Your task to perform on an android device: Open calendar and show me the second week of next month Image 0: 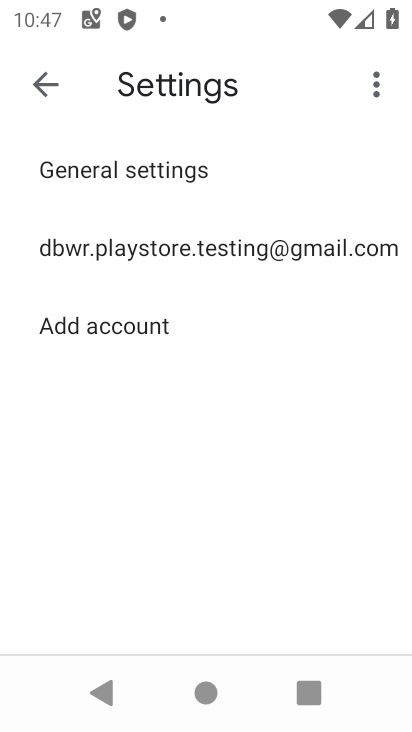
Step 0: press home button
Your task to perform on an android device: Open calendar and show me the second week of next month Image 1: 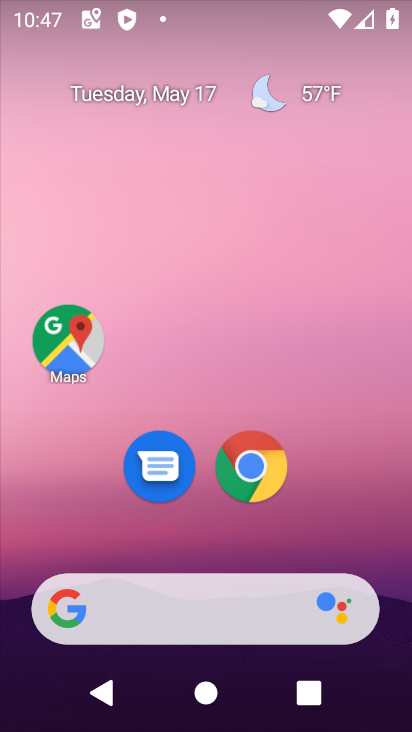
Step 1: drag from (227, 558) to (220, 112)
Your task to perform on an android device: Open calendar and show me the second week of next month Image 2: 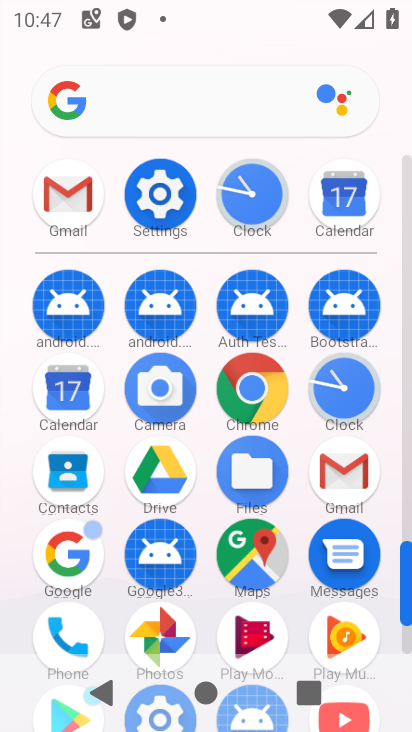
Step 2: click (76, 397)
Your task to perform on an android device: Open calendar and show me the second week of next month Image 3: 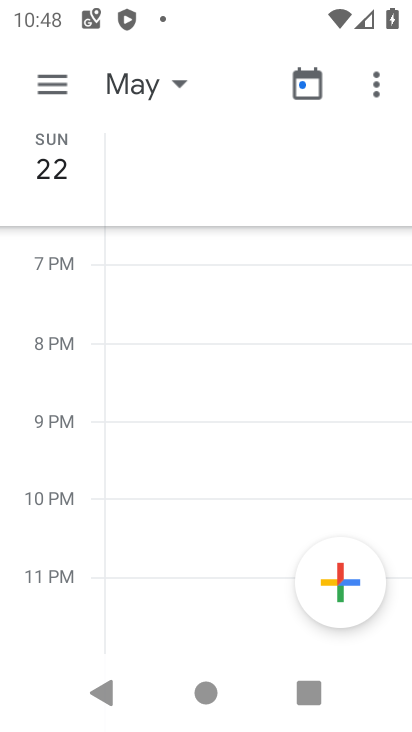
Step 3: click (57, 83)
Your task to perform on an android device: Open calendar and show me the second week of next month Image 4: 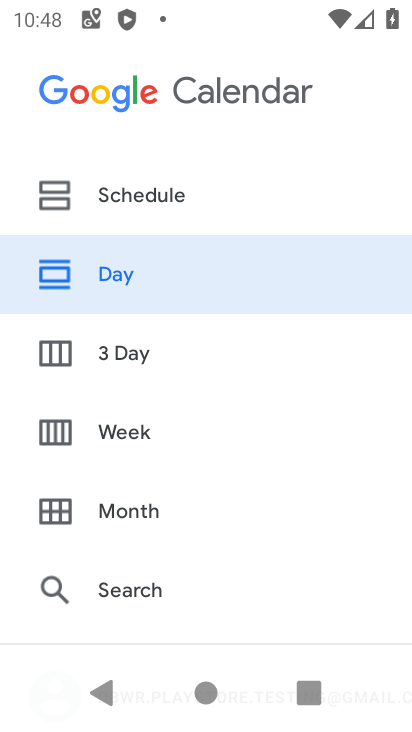
Step 4: click (99, 427)
Your task to perform on an android device: Open calendar and show me the second week of next month Image 5: 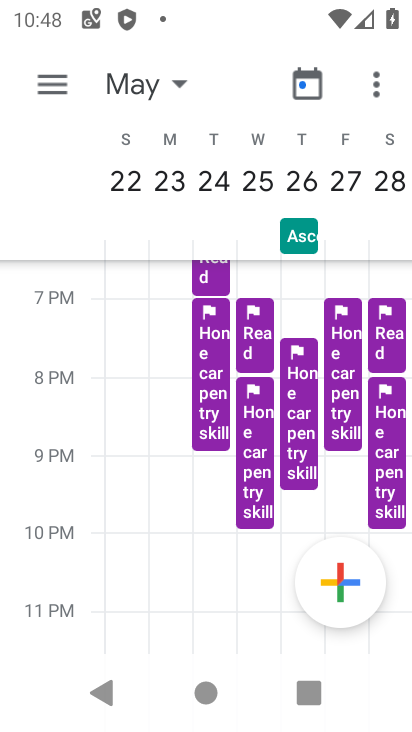
Step 5: task complete